Your task to perform on an android device: Open the phone app and click the voicemail tab. Image 0: 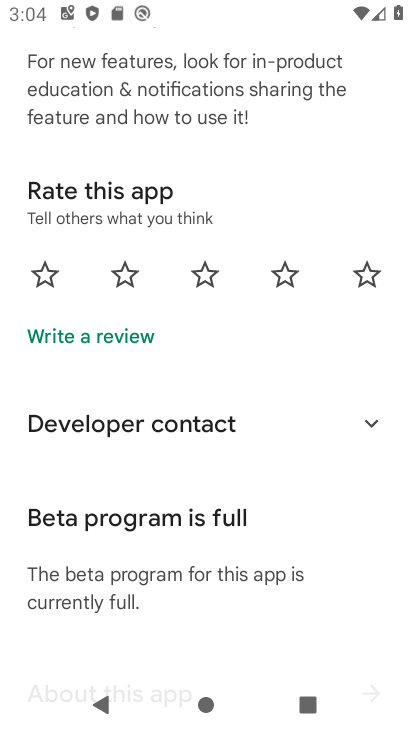
Step 0: press home button
Your task to perform on an android device: Open the phone app and click the voicemail tab. Image 1: 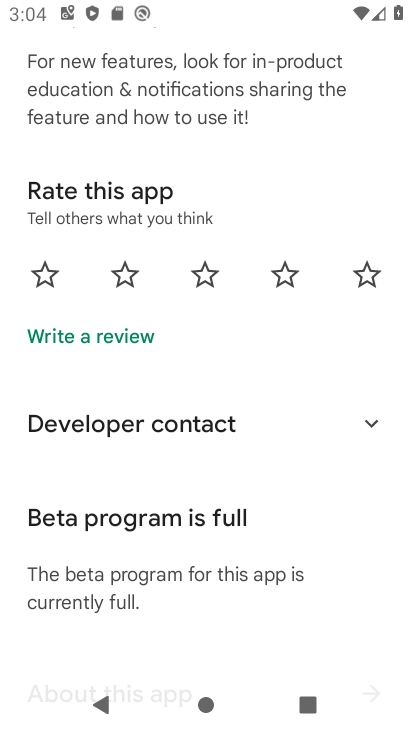
Step 1: press home button
Your task to perform on an android device: Open the phone app and click the voicemail tab. Image 2: 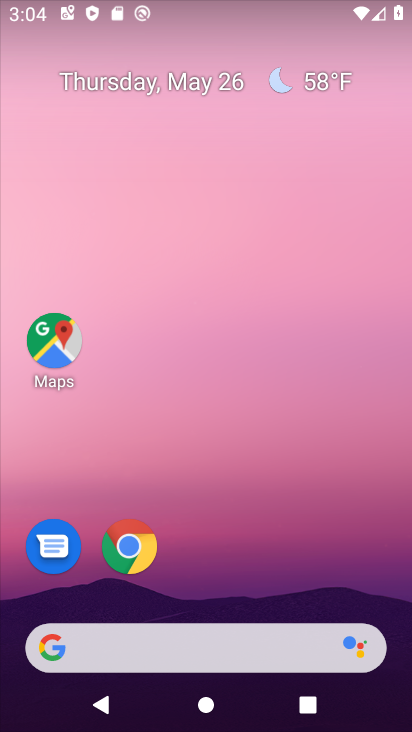
Step 2: drag from (217, 586) to (228, 45)
Your task to perform on an android device: Open the phone app and click the voicemail tab. Image 3: 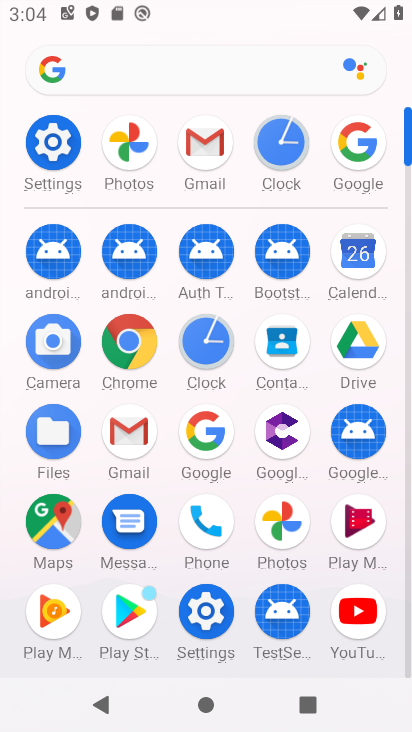
Step 3: click (207, 513)
Your task to perform on an android device: Open the phone app and click the voicemail tab. Image 4: 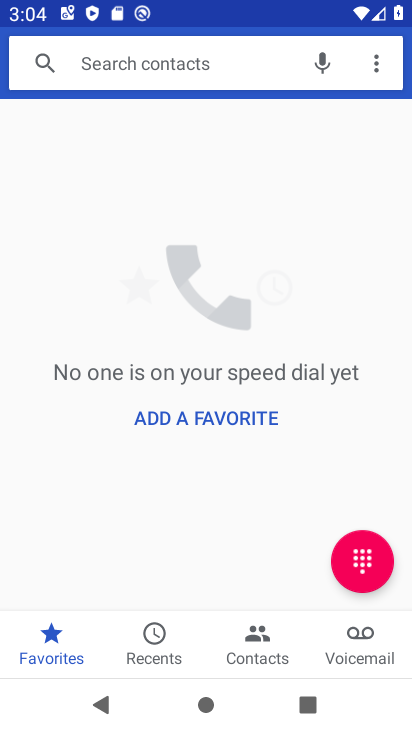
Step 4: click (357, 629)
Your task to perform on an android device: Open the phone app and click the voicemail tab. Image 5: 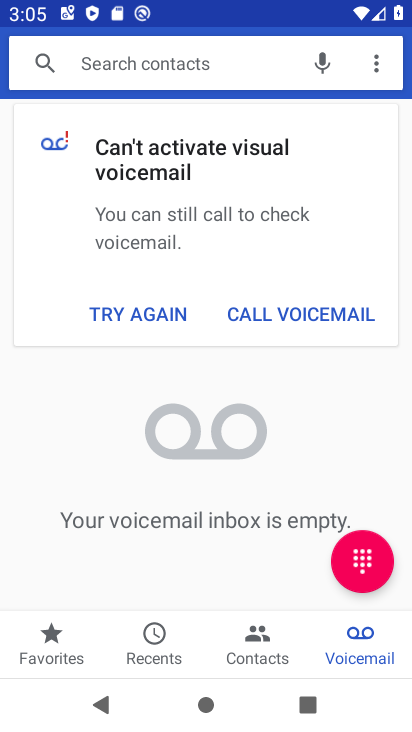
Step 5: task complete